Your task to perform on an android device: Open CNN.com Image 0: 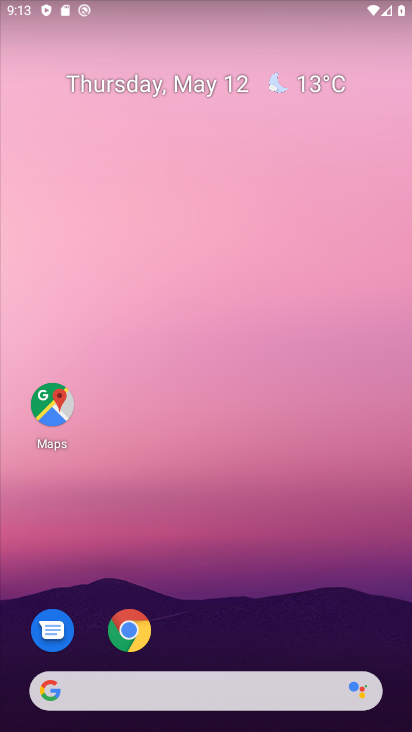
Step 0: click (143, 646)
Your task to perform on an android device: Open CNN.com Image 1: 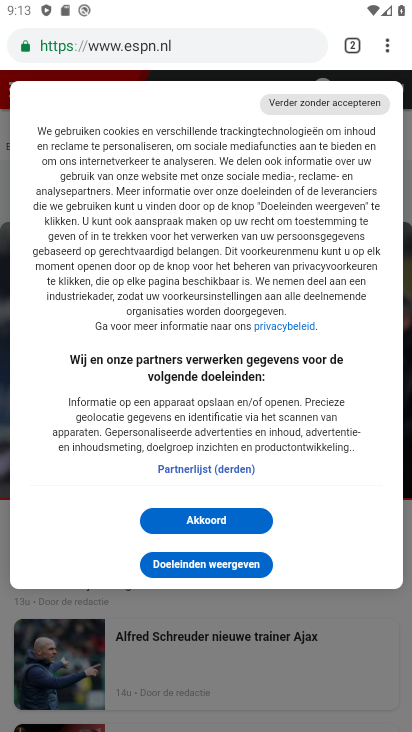
Step 1: click (156, 52)
Your task to perform on an android device: Open CNN.com Image 2: 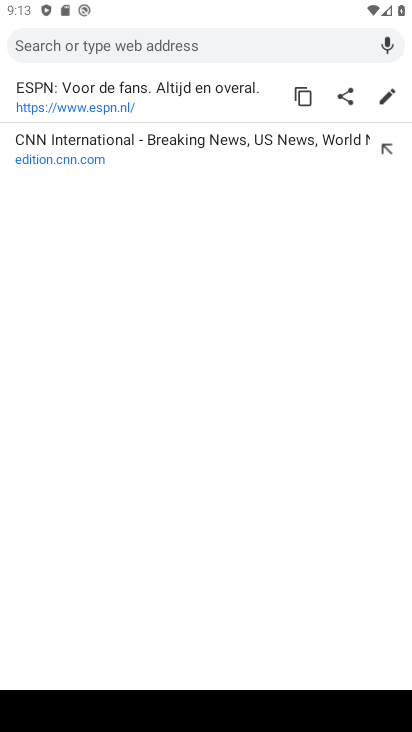
Step 2: click (136, 153)
Your task to perform on an android device: Open CNN.com Image 3: 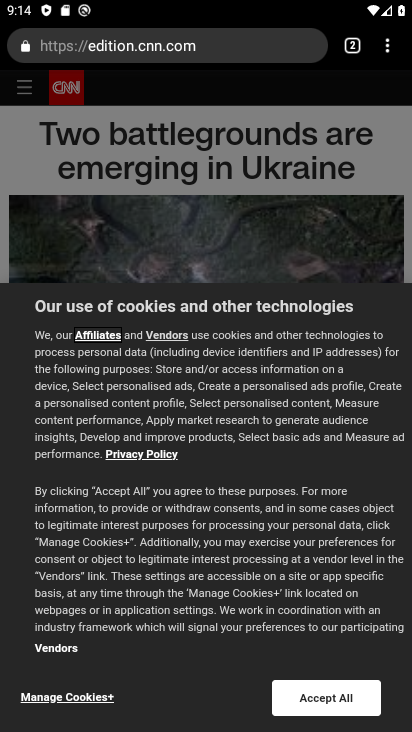
Step 3: task complete